Your task to perform on an android device: Open the calendar and show me this week's events? Image 0: 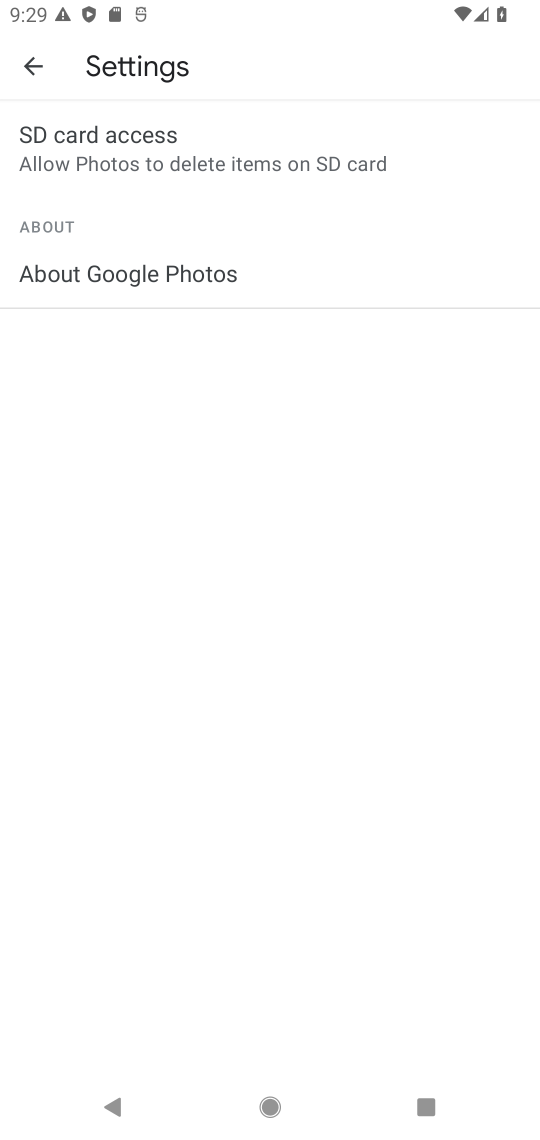
Step 0: press home button
Your task to perform on an android device: Open the calendar and show me this week's events? Image 1: 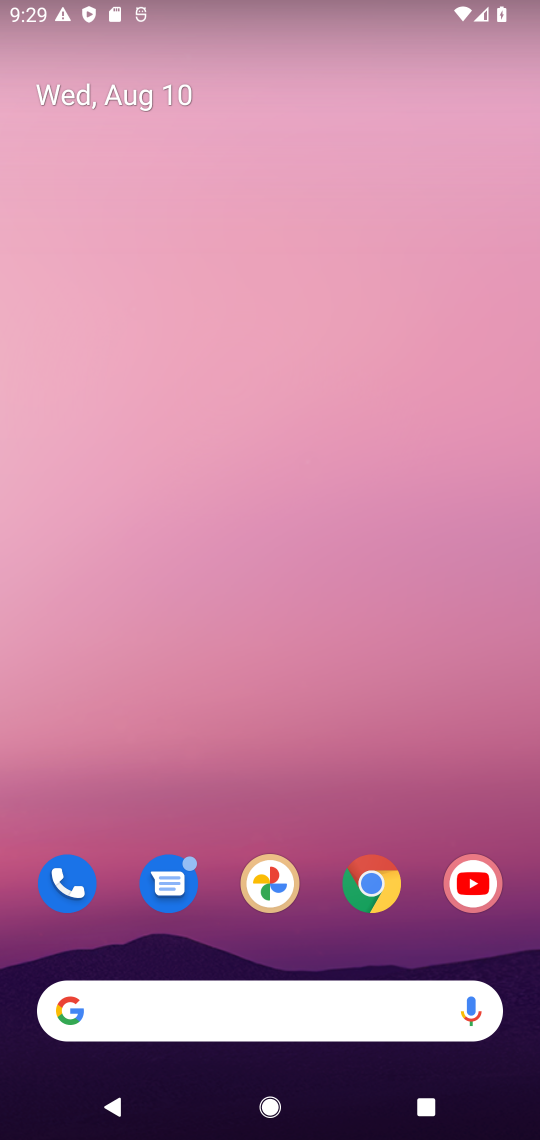
Step 1: drag from (517, 1079) to (401, 42)
Your task to perform on an android device: Open the calendar and show me this week's events? Image 2: 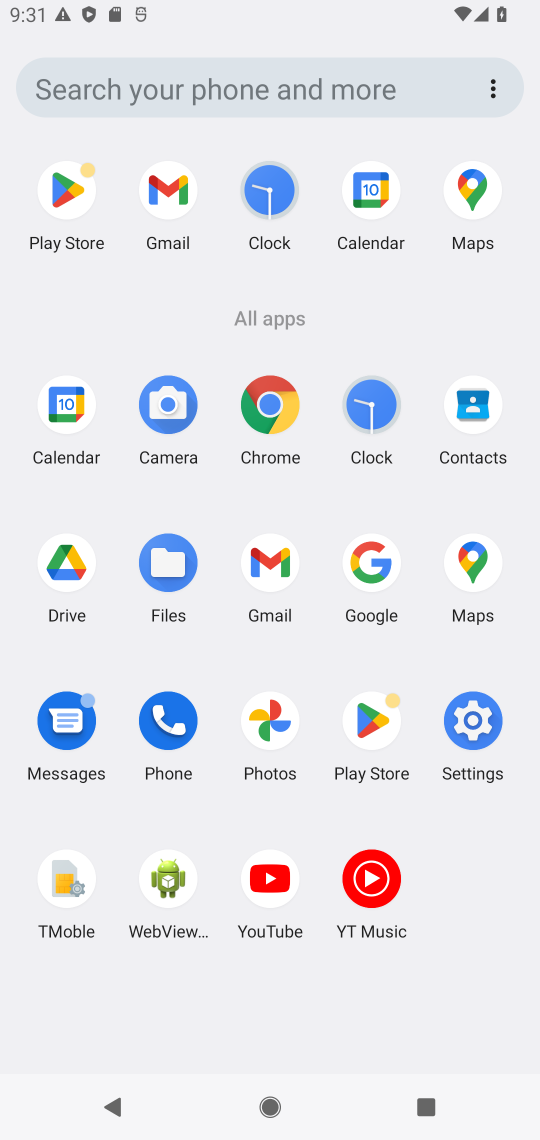
Step 2: click (47, 441)
Your task to perform on an android device: Open the calendar and show me this week's events? Image 3: 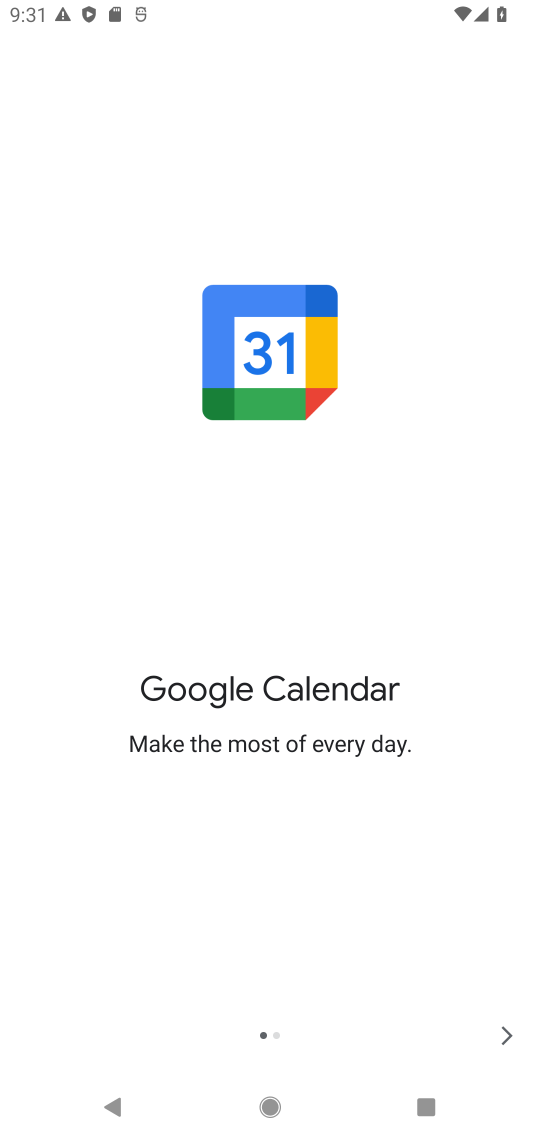
Step 3: click (510, 1029)
Your task to perform on an android device: Open the calendar and show me this week's events? Image 4: 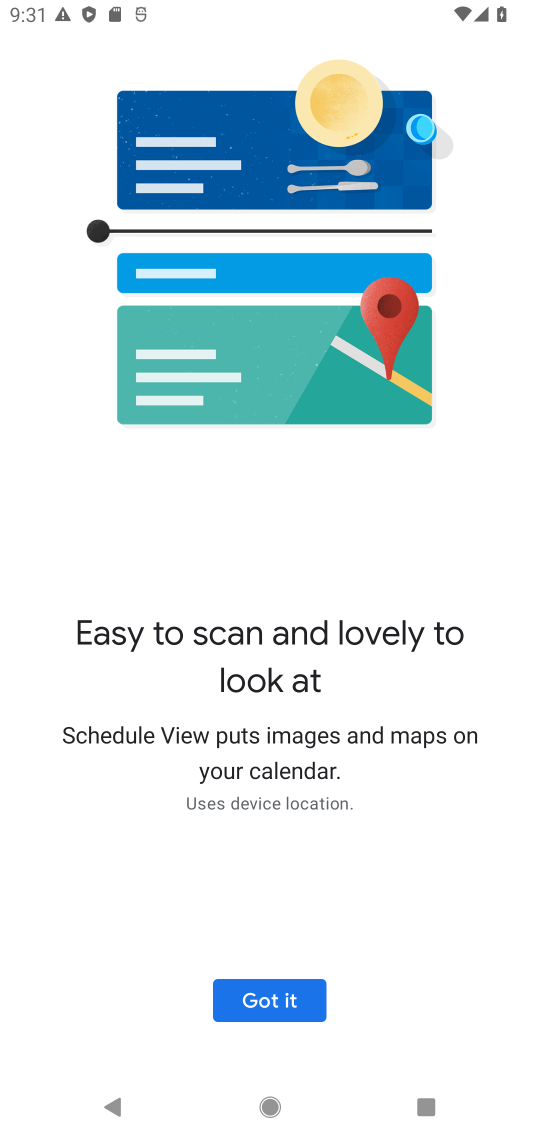
Step 4: click (235, 1027)
Your task to perform on an android device: Open the calendar and show me this week's events? Image 5: 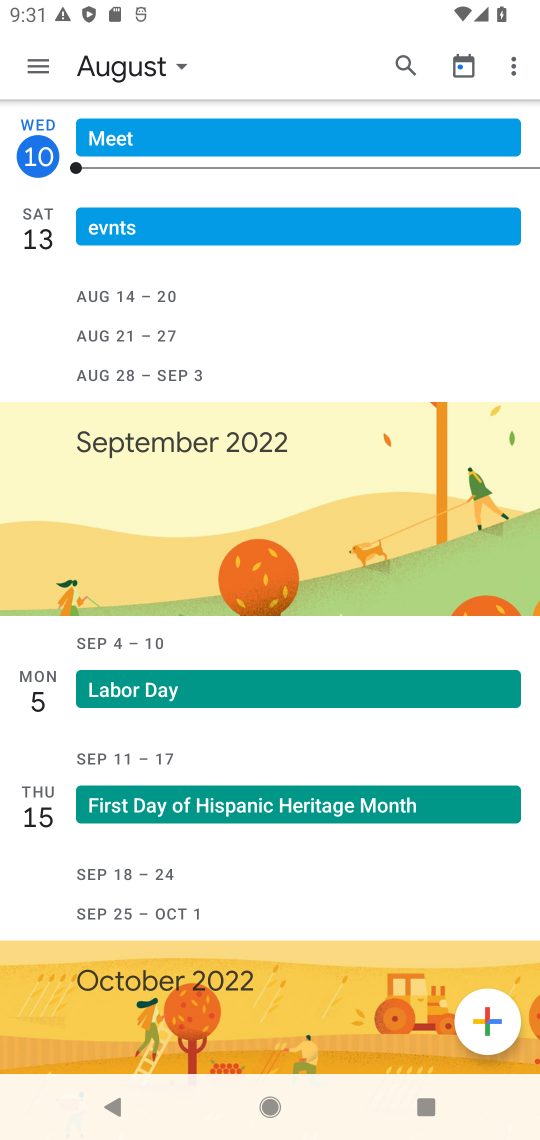
Step 5: click (113, 64)
Your task to perform on an android device: Open the calendar and show me this week's events? Image 6: 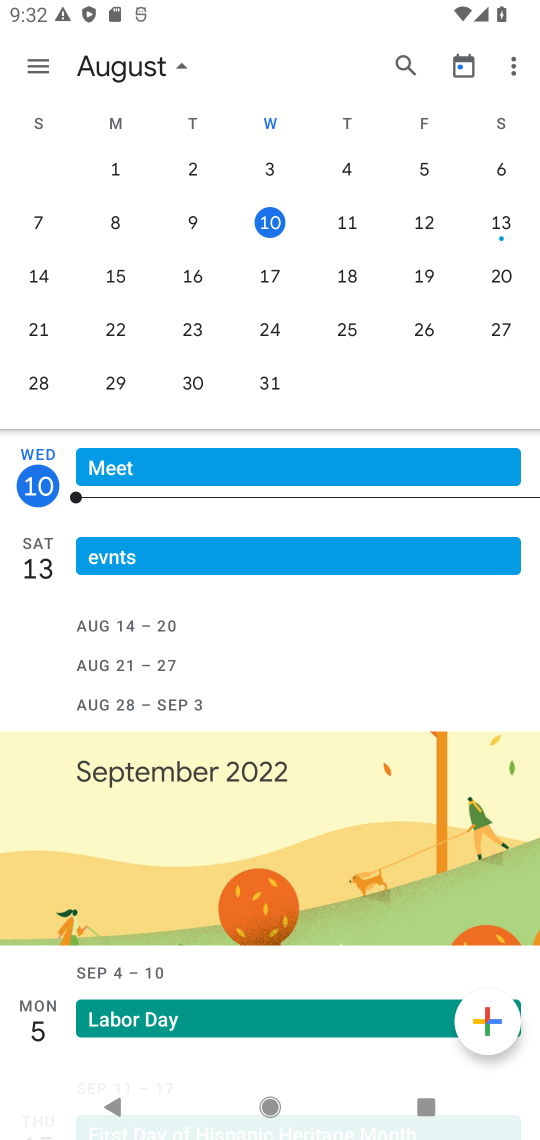
Step 6: click (283, 285)
Your task to perform on an android device: Open the calendar and show me this week's events? Image 7: 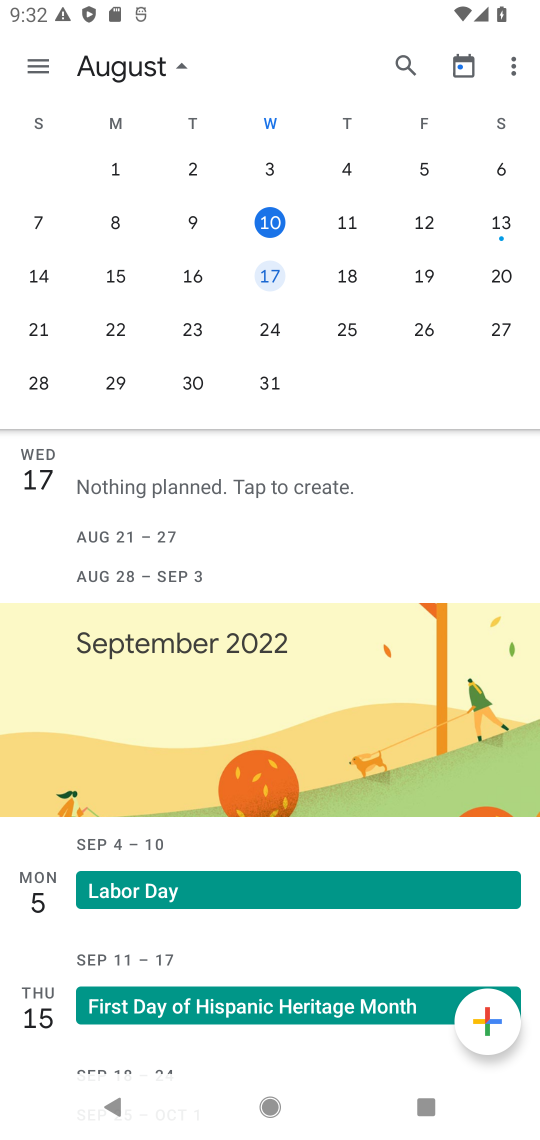
Step 7: task complete